Your task to perform on an android device: show emergency info Image 0: 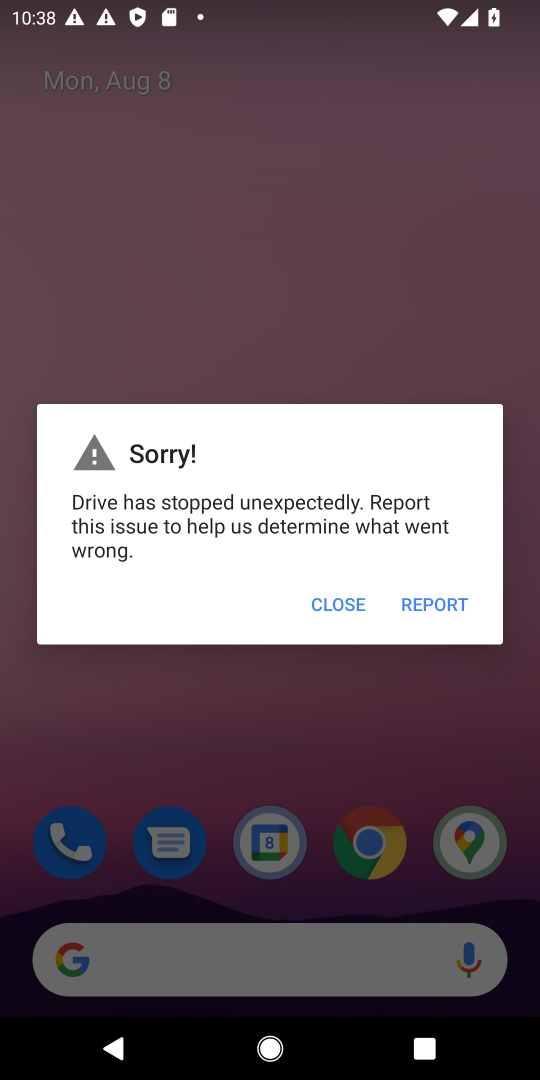
Step 0: click (342, 609)
Your task to perform on an android device: show emergency info Image 1: 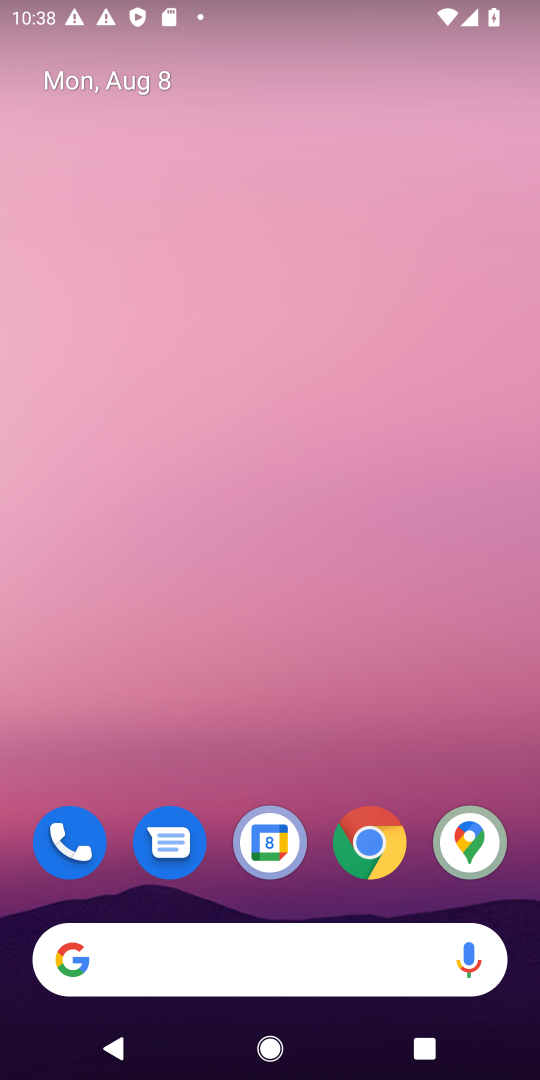
Step 1: drag from (213, 775) to (139, 339)
Your task to perform on an android device: show emergency info Image 2: 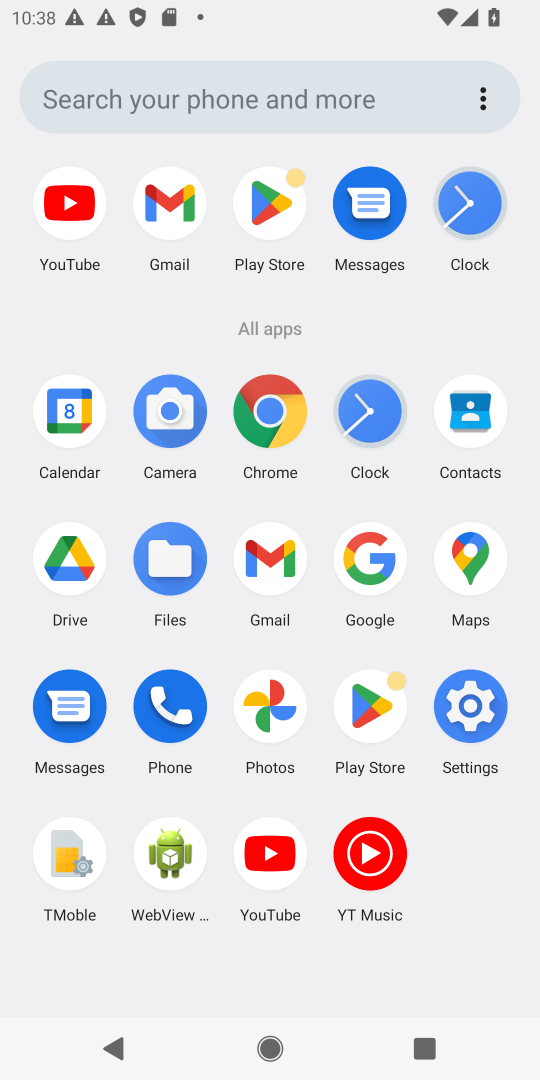
Step 2: click (139, 339)
Your task to perform on an android device: show emergency info Image 3: 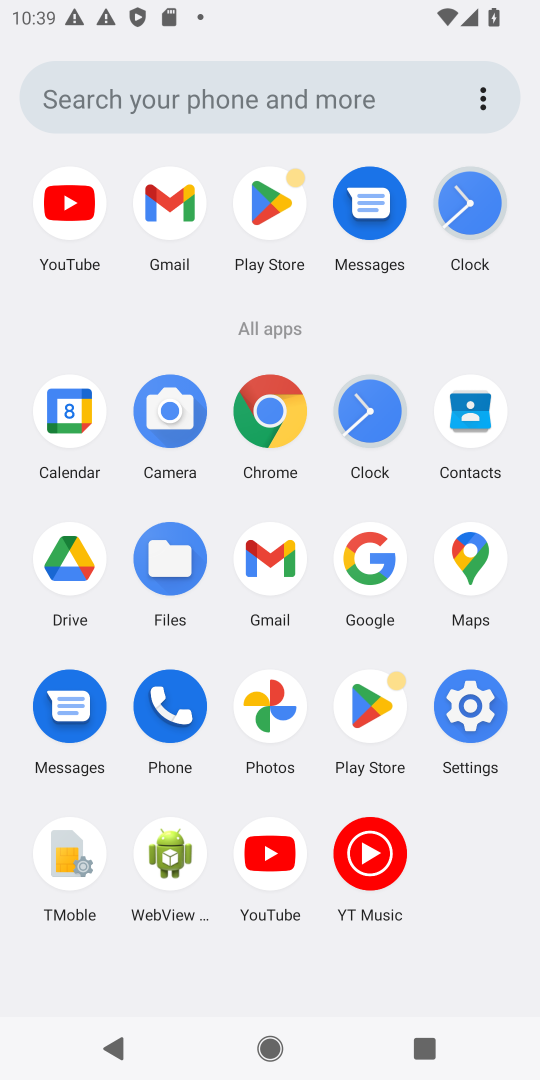
Step 3: click (467, 712)
Your task to perform on an android device: show emergency info Image 4: 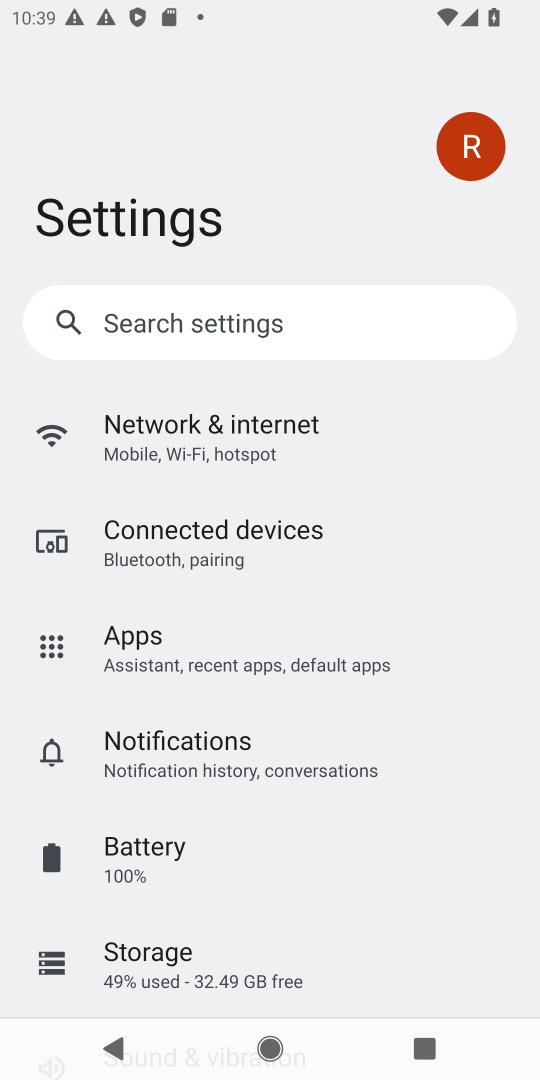
Step 4: drag from (392, 860) to (291, 157)
Your task to perform on an android device: show emergency info Image 5: 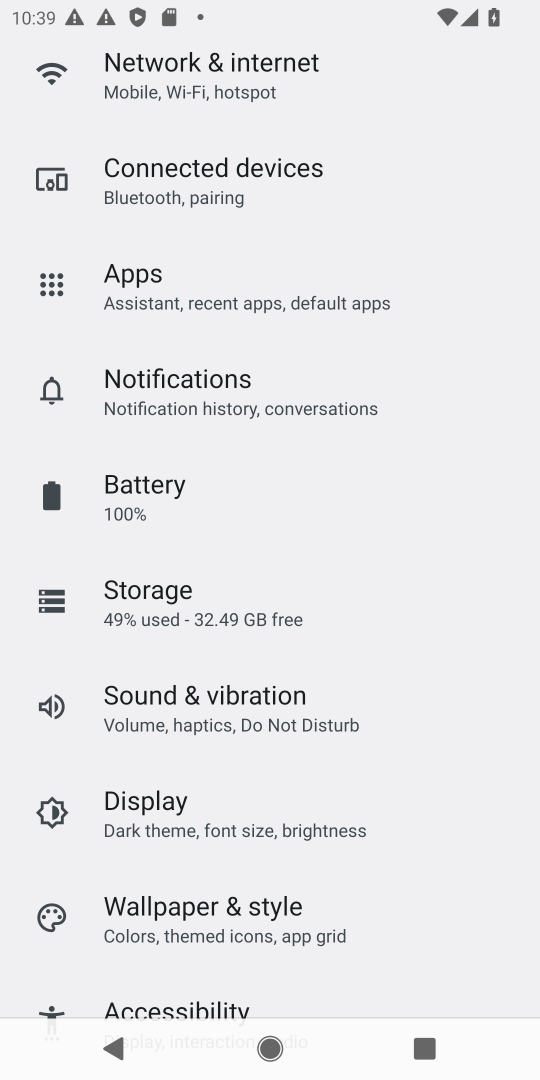
Step 5: drag from (422, 706) to (334, 311)
Your task to perform on an android device: show emergency info Image 6: 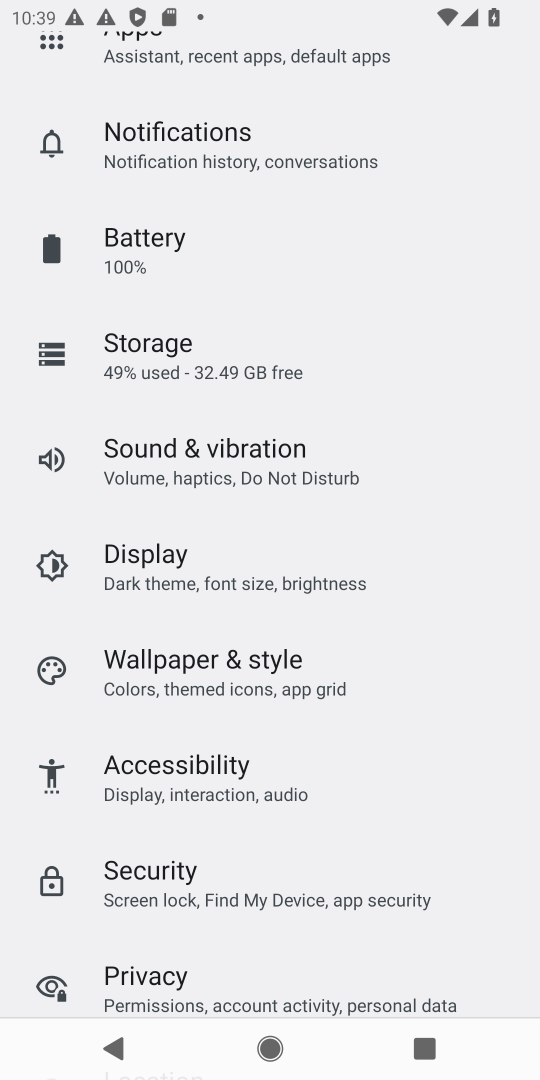
Step 6: drag from (505, 929) to (358, 379)
Your task to perform on an android device: show emergency info Image 7: 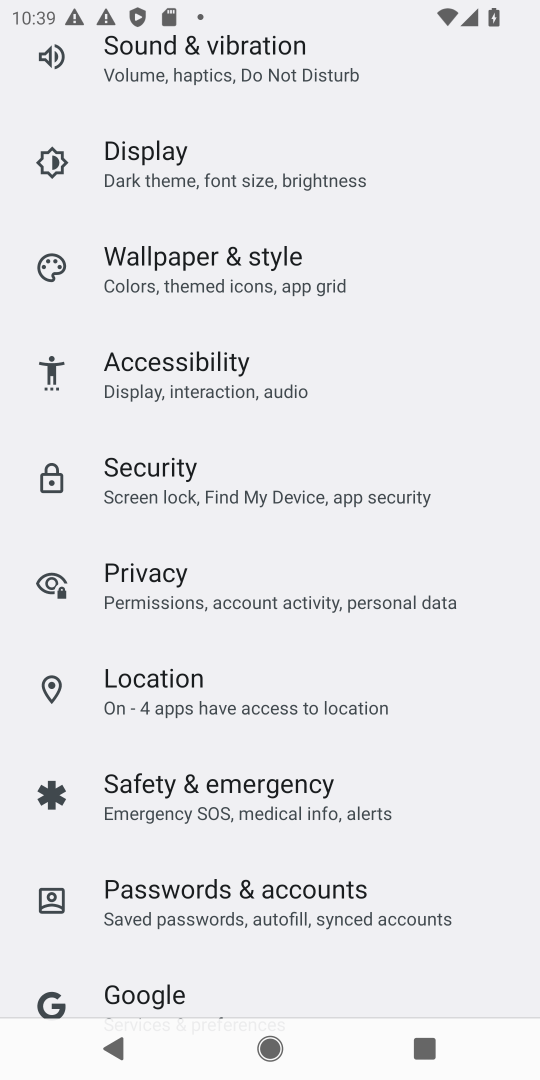
Step 7: click (157, 779)
Your task to perform on an android device: show emergency info Image 8: 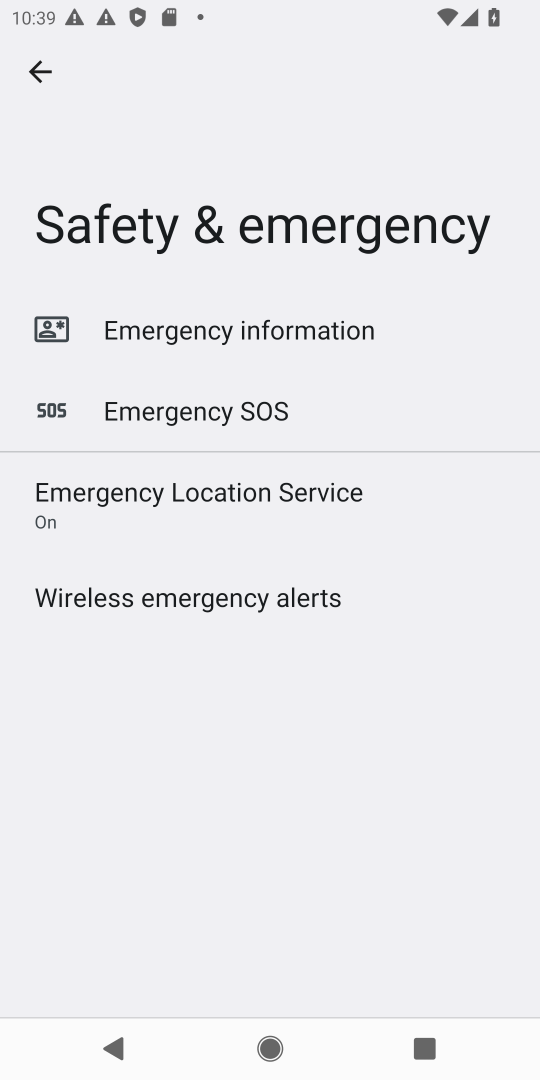
Step 8: task complete